Your task to perform on an android device: Open Google Image 0: 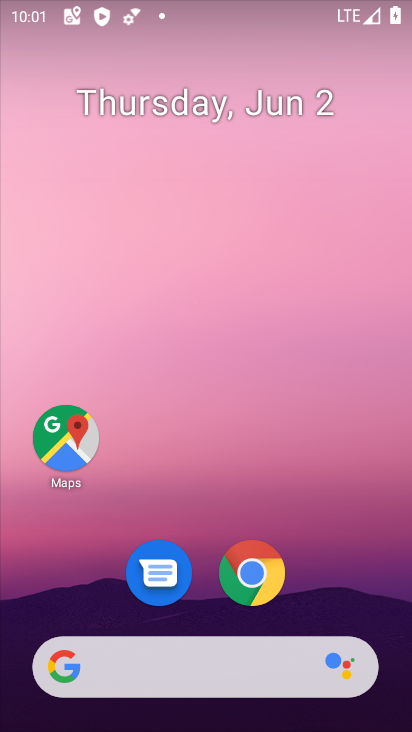
Step 0: drag from (337, 581) to (308, 3)
Your task to perform on an android device: Open Google Image 1: 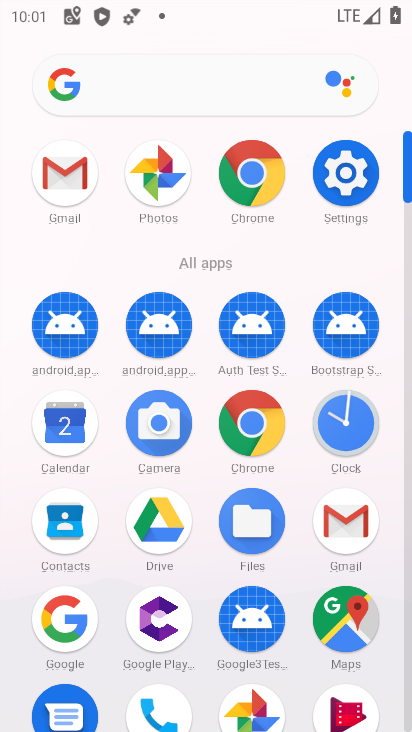
Step 1: click (68, 634)
Your task to perform on an android device: Open Google Image 2: 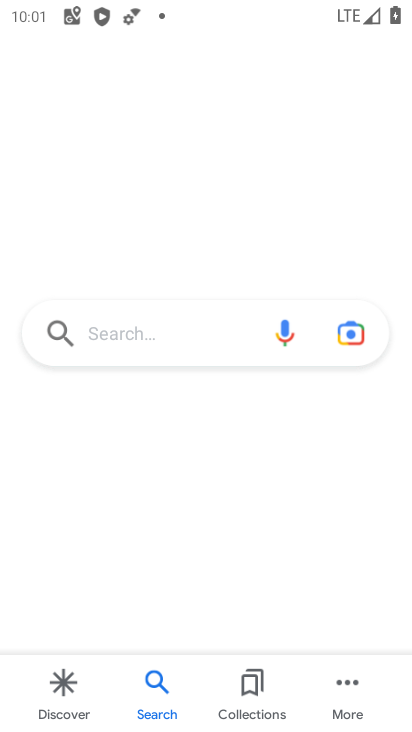
Step 2: task complete